Your task to perform on an android device: Check out the new ikea catalog. Image 0: 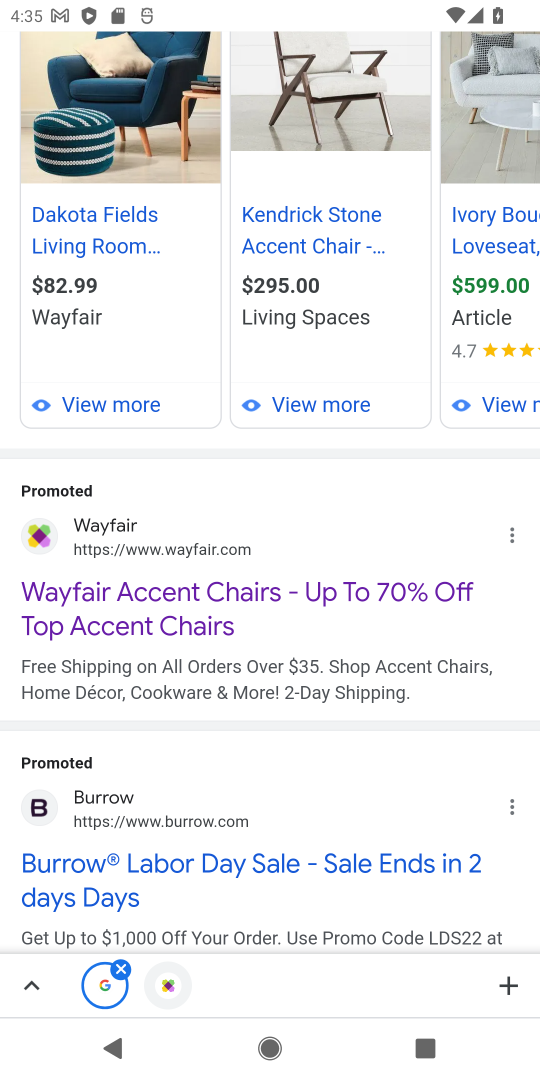
Step 0: task complete